Your task to perform on an android device: Go to sound settings Image 0: 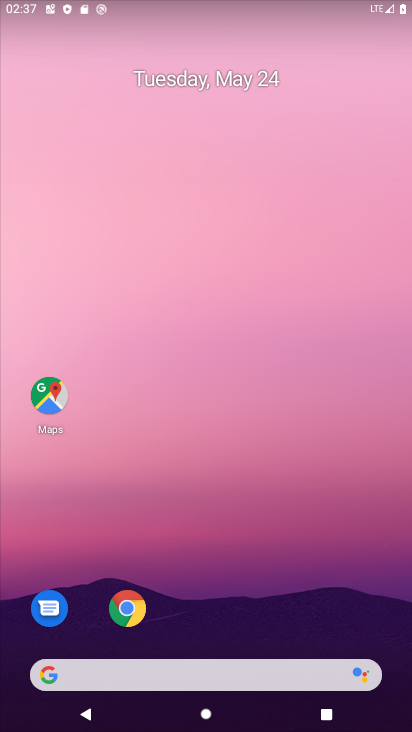
Step 0: drag from (236, 647) to (188, 217)
Your task to perform on an android device: Go to sound settings Image 1: 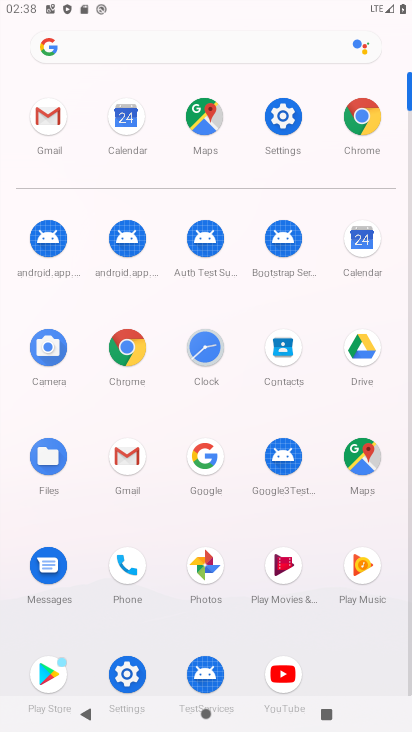
Step 1: click (286, 124)
Your task to perform on an android device: Go to sound settings Image 2: 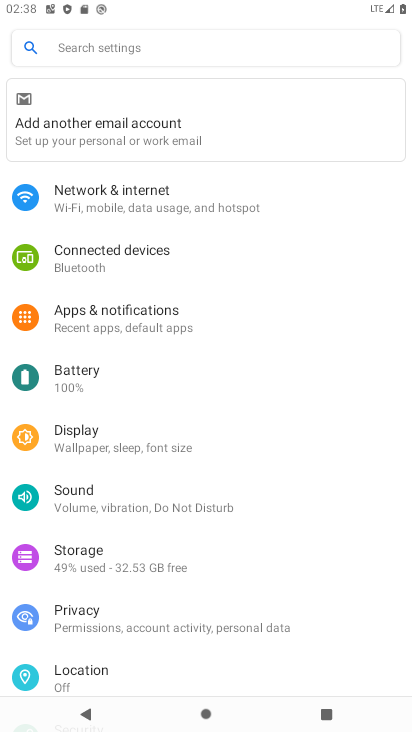
Step 2: click (144, 506)
Your task to perform on an android device: Go to sound settings Image 3: 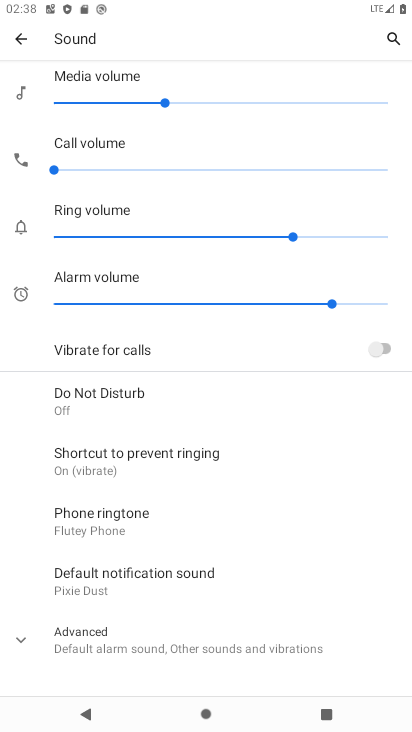
Step 3: task complete